Your task to perform on an android device: Set the phone to "Do not disturb". Image 0: 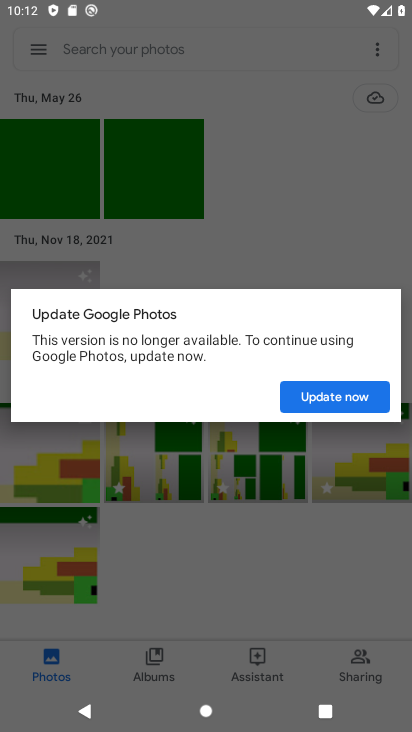
Step 0: press home button
Your task to perform on an android device: Set the phone to "Do not disturb". Image 1: 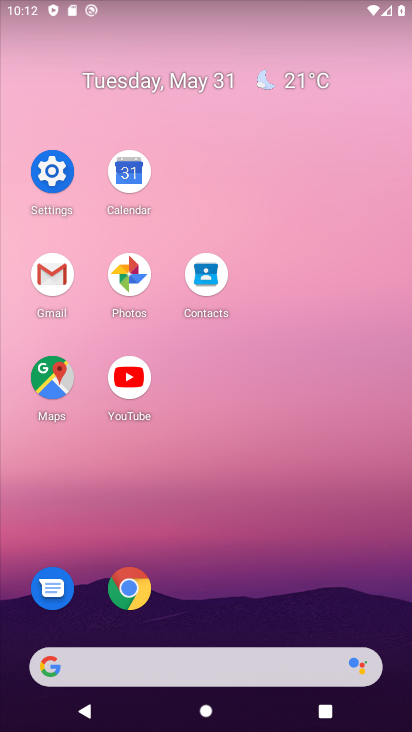
Step 1: click (55, 166)
Your task to perform on an android device: Set the phone to "Do not disturb". Image 2: 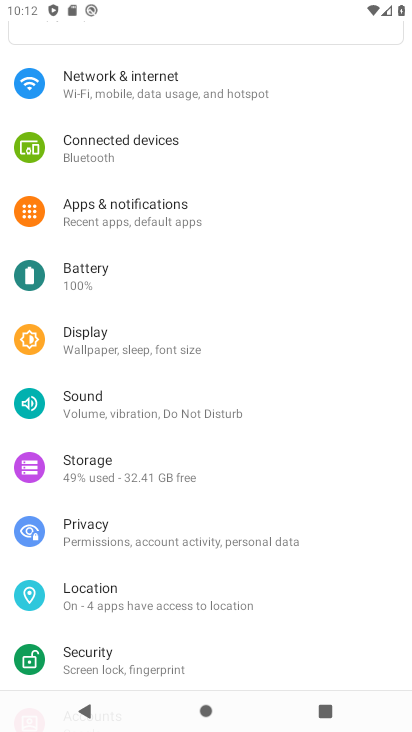
Step 2: click (153, 416)
Your task to perform on an android device: Set the phone to "Do not disturb". Image 3: 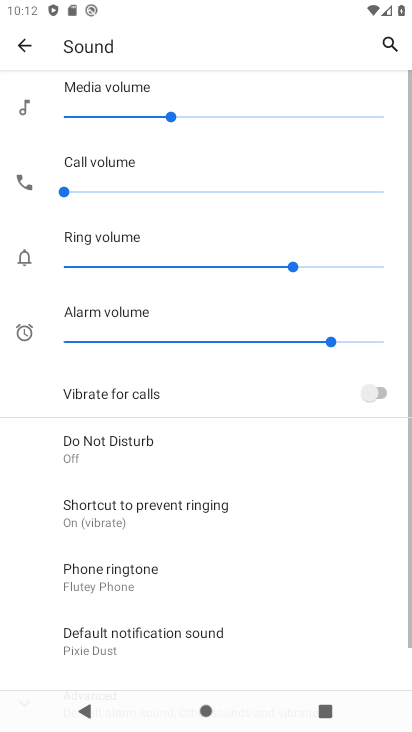
Step 3: click (160, 443)
Your task to perform on an android device: Set the phone to "Do not disturb". Image 4: 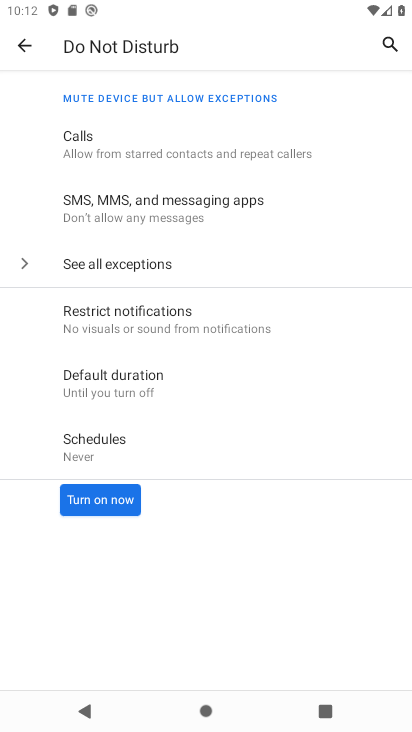
Step 4: click (112, 493)
Your task to perform on an android device: Set the phone to "Do not disturb". Image 5: 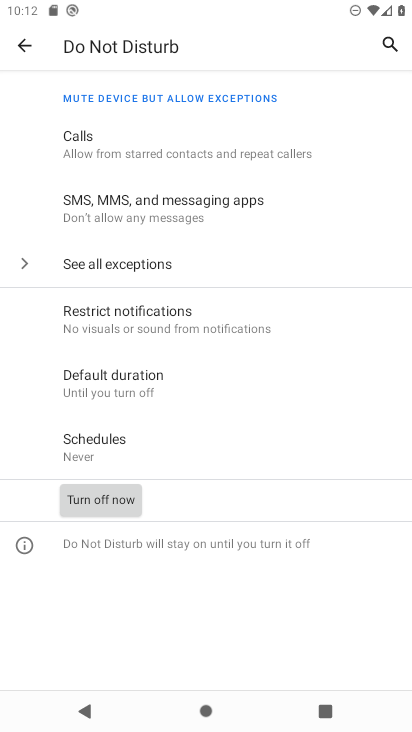
Step 5: task complete